Your task to perform on an android device: turn off translation in the chrome app Image 0: 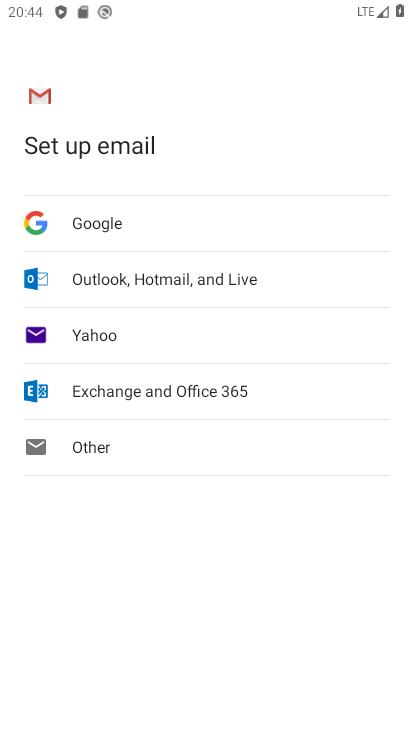
Step 0: press home button
Your task to perform on an android device: turn off translation in the chrome app Image 1: 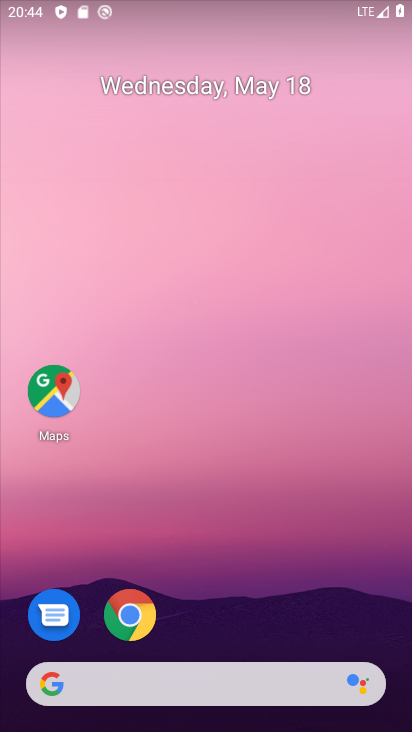
Step 1: click (148, 613)
Your task to perform on an android device: turn off translation in the chrome app Image 2: 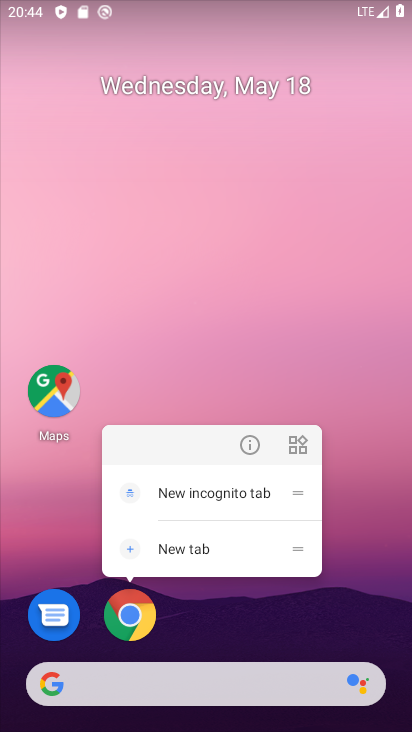
Step 2: click (148, 613)
Your task to perform on an android device: turn off translation in the chrome app Image 3: 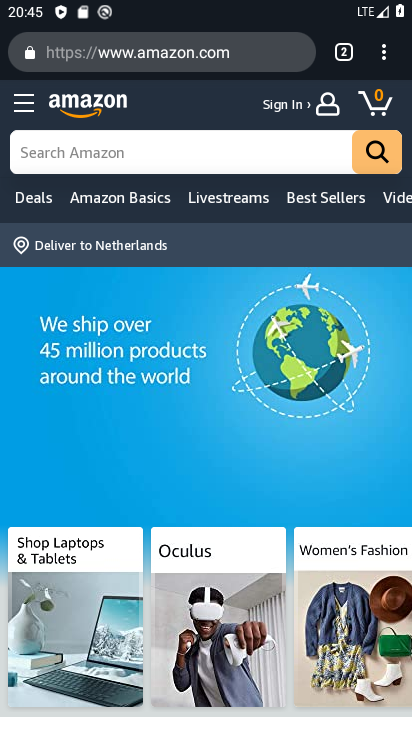
Step 3: drag from (383, 57) to (203, 631)
Your task to perform on an android device: turn off translation in the chrome app Image 4: 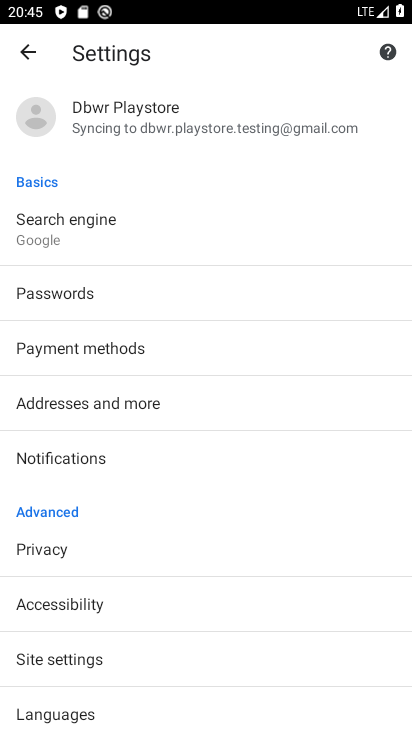
Step 4: drag from (103, 667) to (64, 369)
Your task to perform on an android device: turn off translation in the chrome app Image 5: 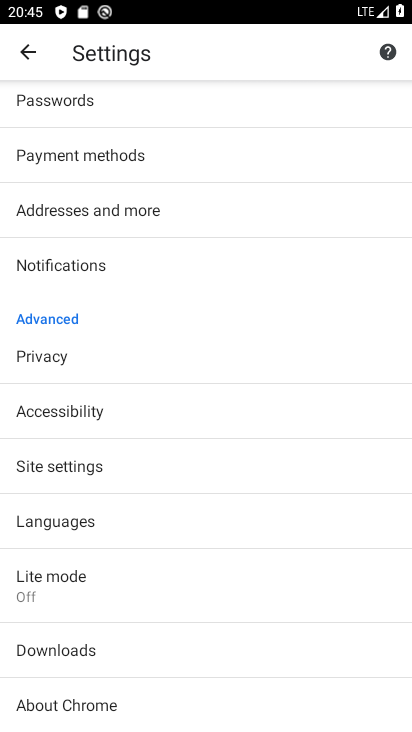
Step 5: click (80, 522)
Your task to perform on an android device: turn off translation in the chrome app Image 6: 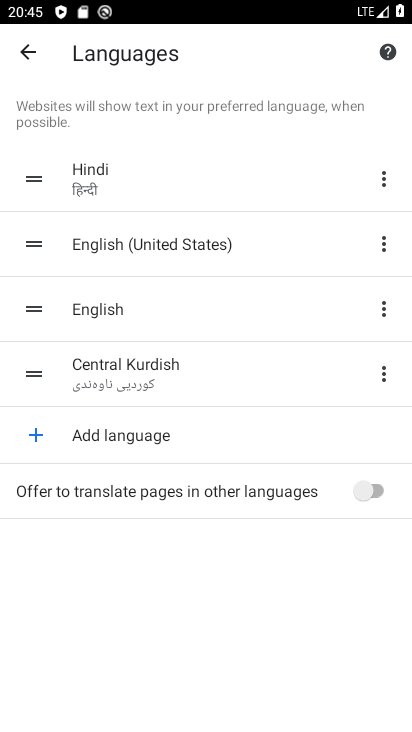
Step 6: task complete